Your task to perform on an android device: toggle wifi Image 0: 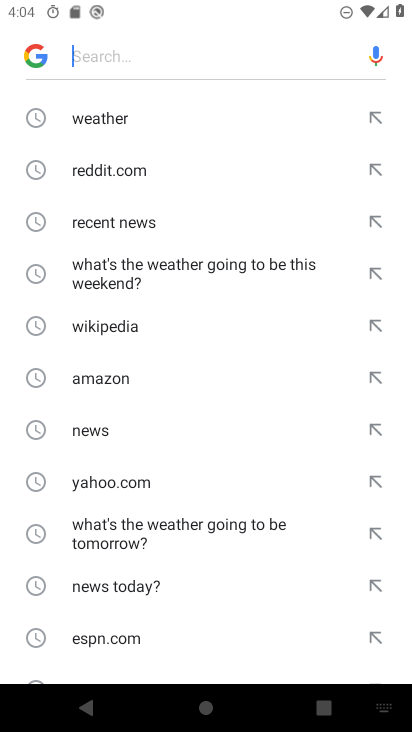
Step 0: press home button
Your task to perform on an android device: toggle wifi Image 1: 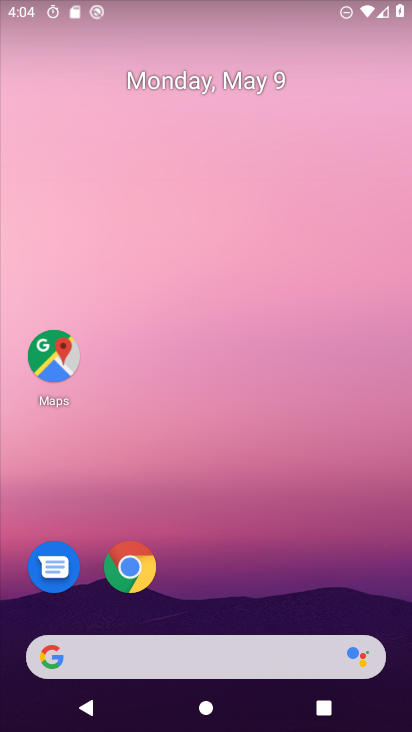
Step 1: drag from (221, 569) to (234, 140)
Your task to perform on an android device: toggle wifi Image 2: 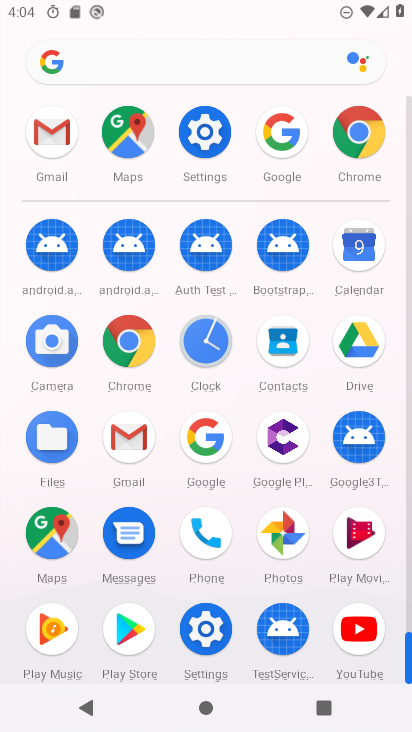
Step 2: click (206, 118)
Your task to perform on an android device: toggle wifi Image 3: 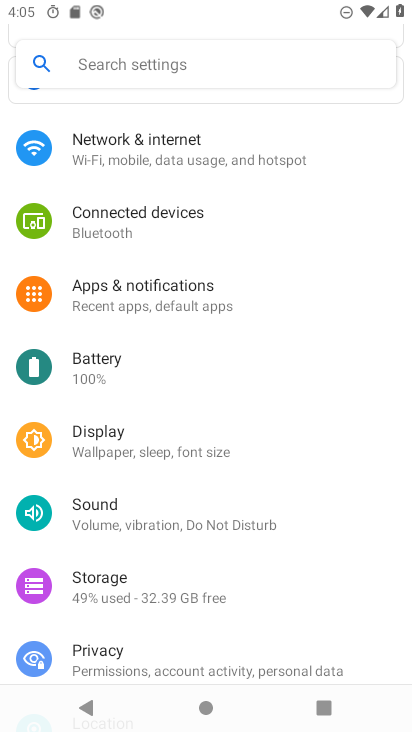
Step 3: click (163, 156)
Your task to perform on an android device: toggle wifi Image 4: 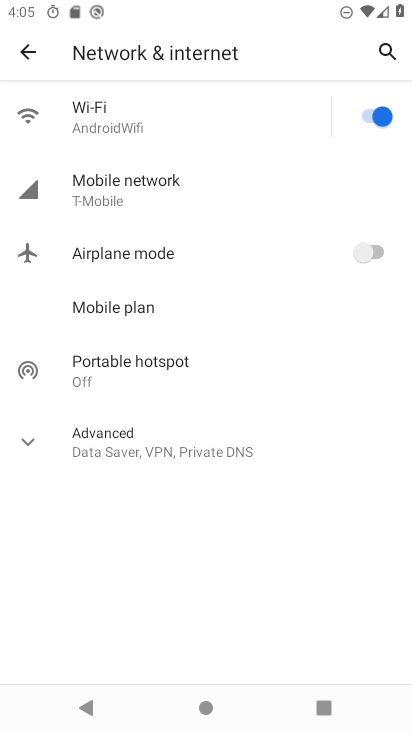
Step 4: click (114, 116)
Your task to perform on an android device: toggle wifi Image 5: 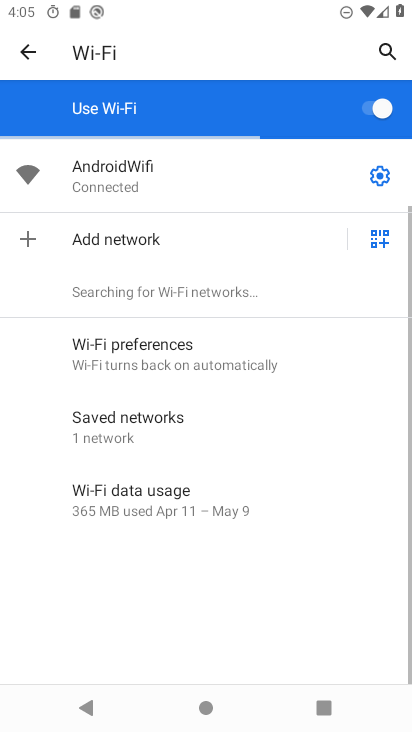
Step 5: click (368, 104)
Your task to perform on an android device: toggle wifi Image 6: 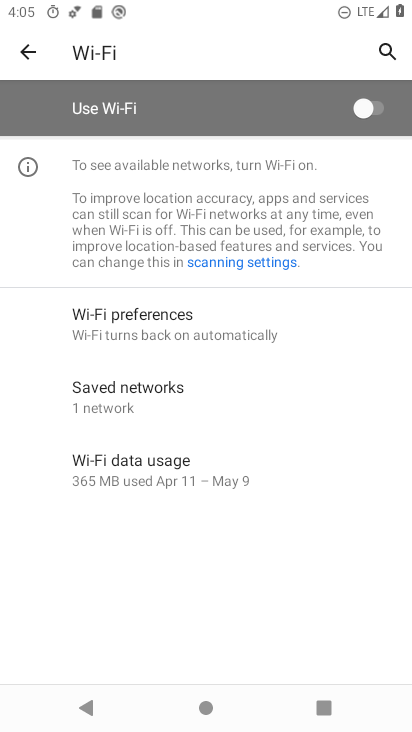
Step 6: task complete